Your task to perform on an android device: refresh tabs in the chrome app Image 0: 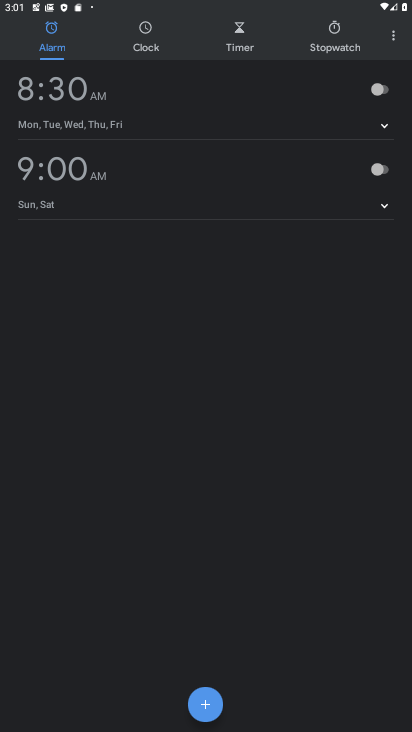
Step 0: press home button
Your task to perform on an android device: refresh tabs in the chrome app Image 1: 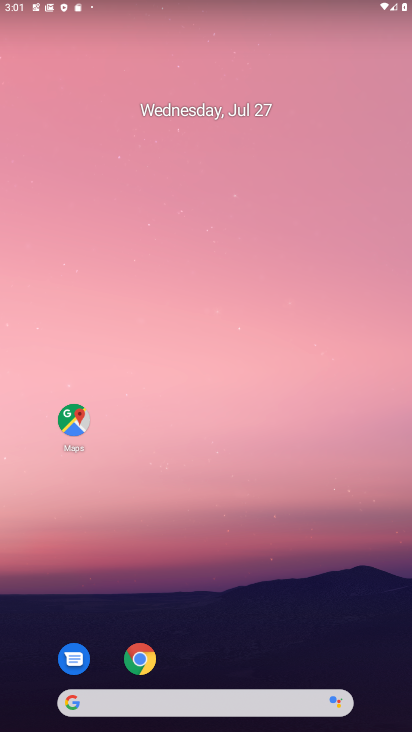
Step 1: click (133, 665)
Your task to perform on an android device: refresh tabs in the chrome app Image 2: 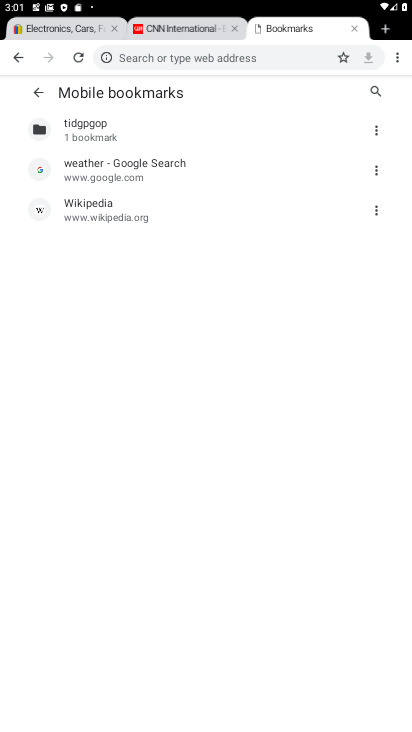
Step 2: click (391, 59)
Your task to perform on an android device: refresh tabs in the chrome app Image 3: 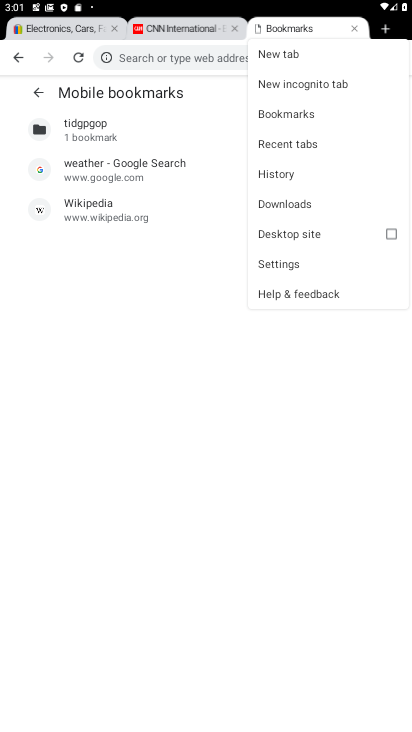
Step 3: click (70, 54)
Your task to perform on an android device: refresh tabs in the chrome app Image 4: 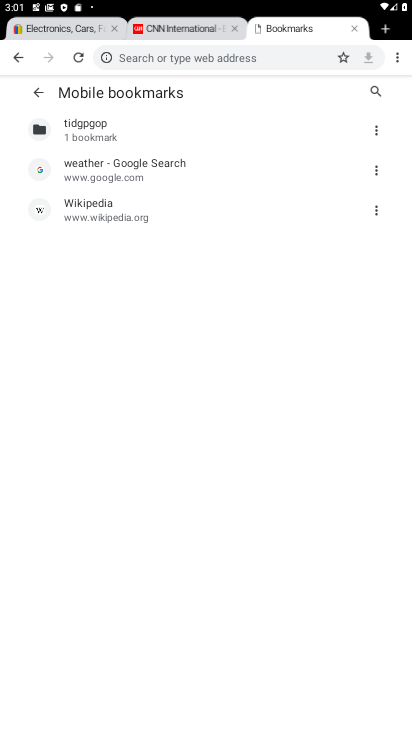
Step 4: click (77, 59)
Your task to perform on an android device: refresh tabs in the chrome app Image 5: 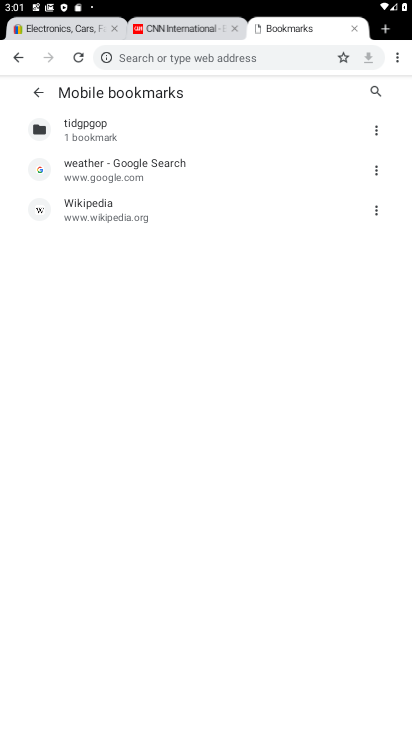
Step 5: task complete